Your task to perform on an android device: Open sound settings Image 0: 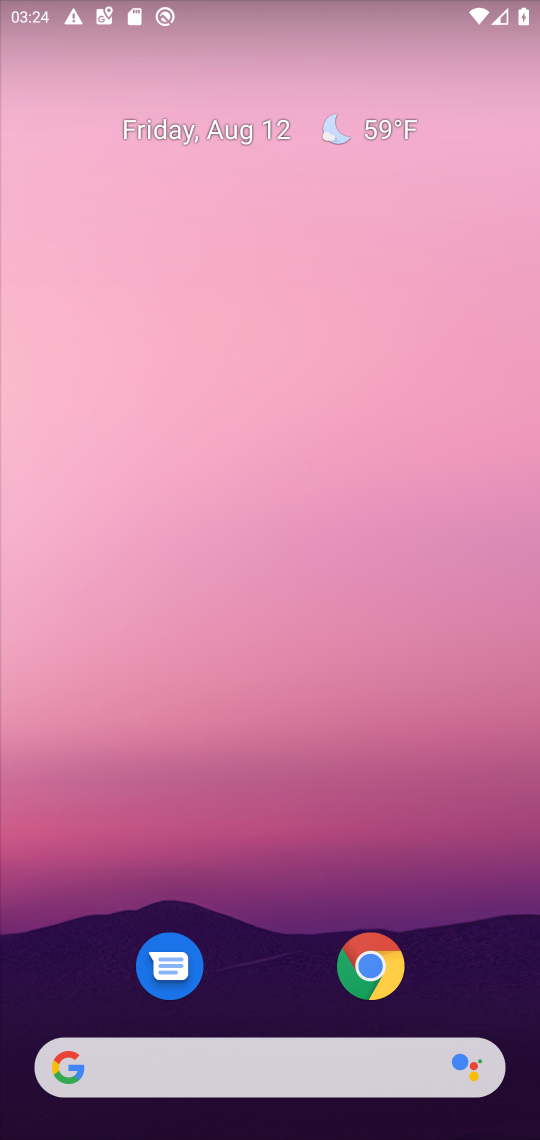
Step 0: drag from (256, 755) to (268, 20)
Your task to perform on an android device: Open sound settings Image 1: 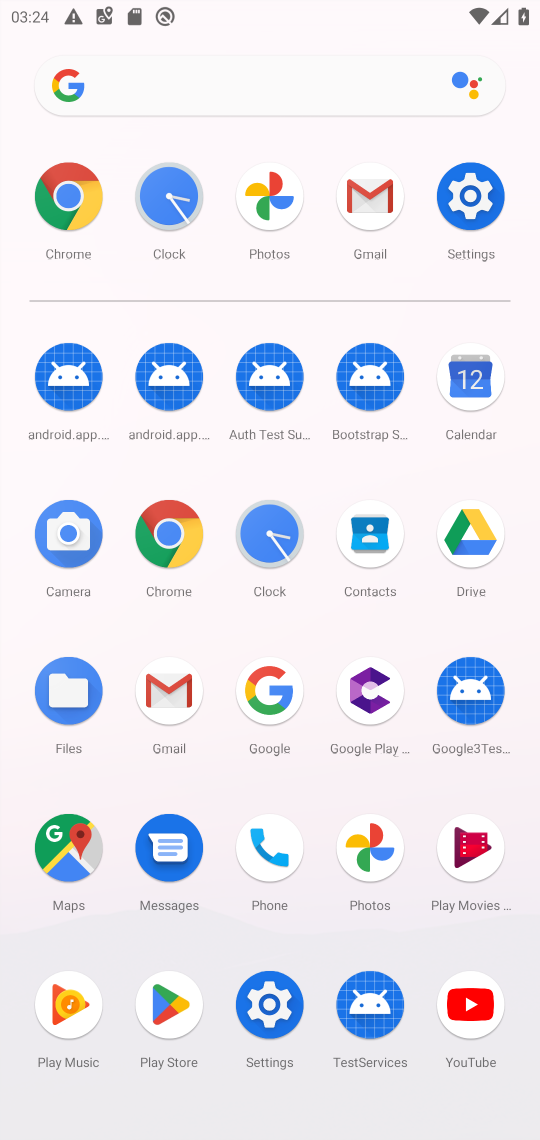
Step 1: click (266, 1019)
Your task to perform on an android device: Open sound settings Image 2: 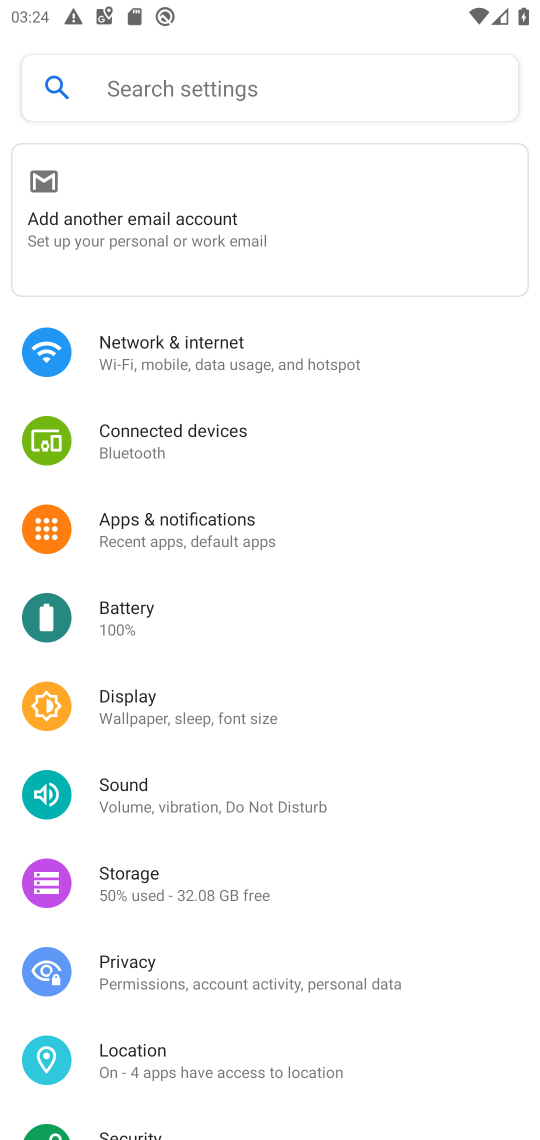
Step 2: click (172, 806)
Your task to perform on an android device: Open sound settings Image 3: 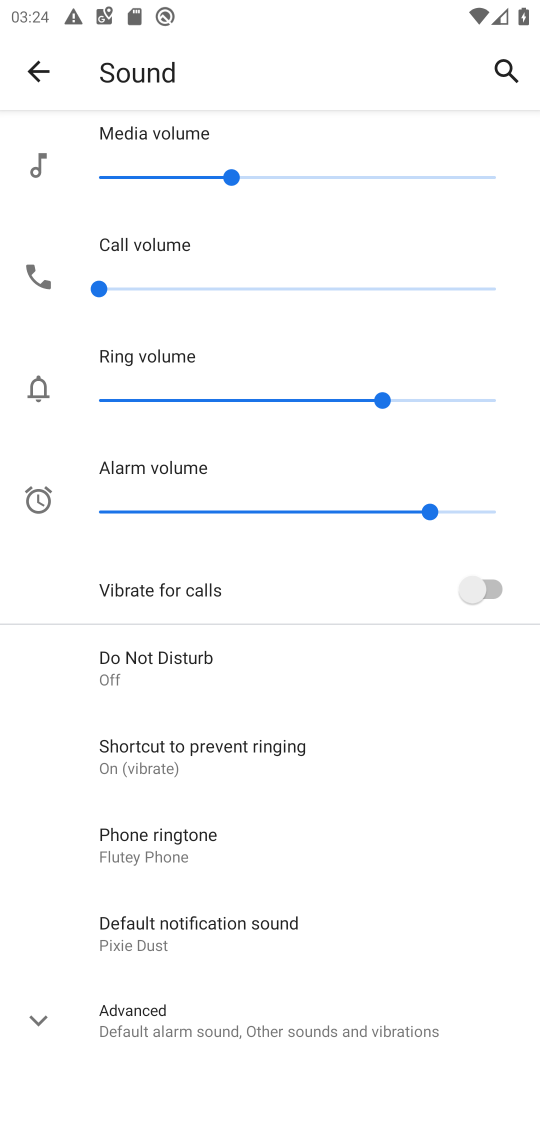
Step 3: task complete